Your task to perform on an android device: Open Amazon Image 0: 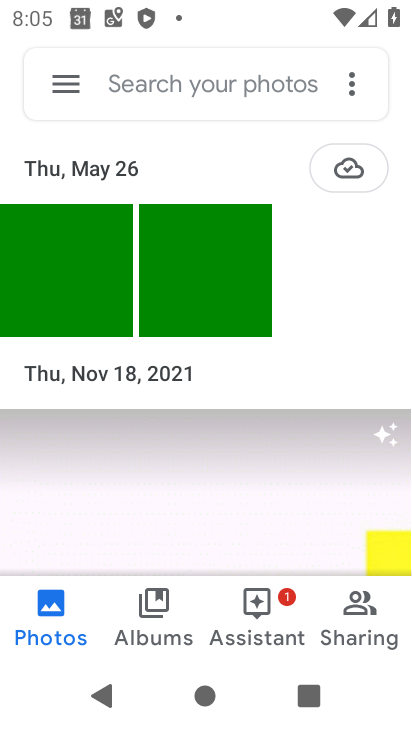
Step 0: press home button
Your task to perform on an android device: Open Amazon Image 1: 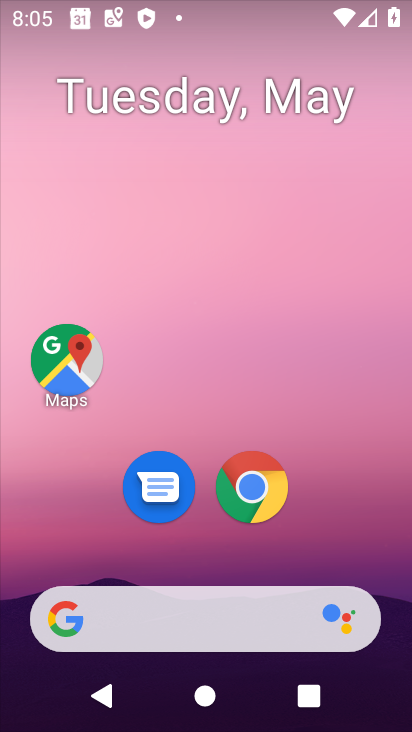
Step 1: drag from (356, 495) to (375, 78)
Your task to perform on an android device: Open Amazon Image 2: 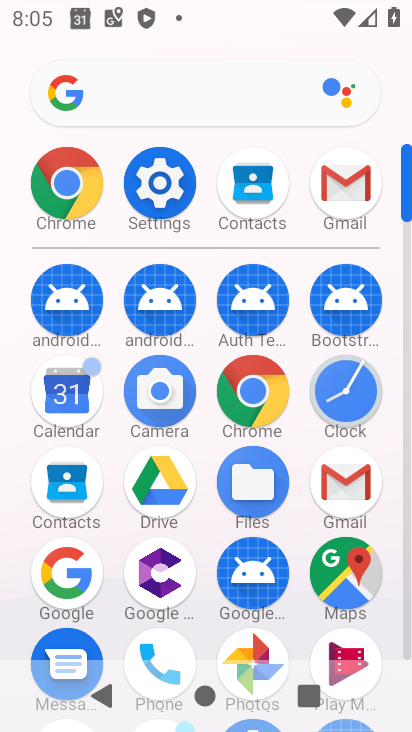
Step 2: click (244, 400)
Your task to perform on an android device: Open Amazon Image 3: 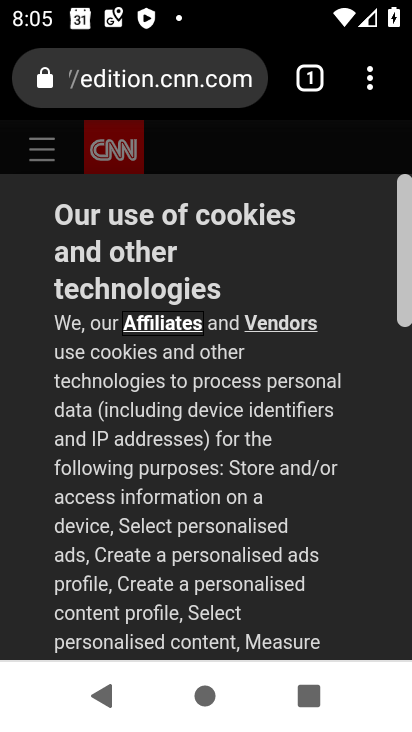
Step 3: click (246, 80)
Your task to perform on an android device: Open Amazon Image 4: 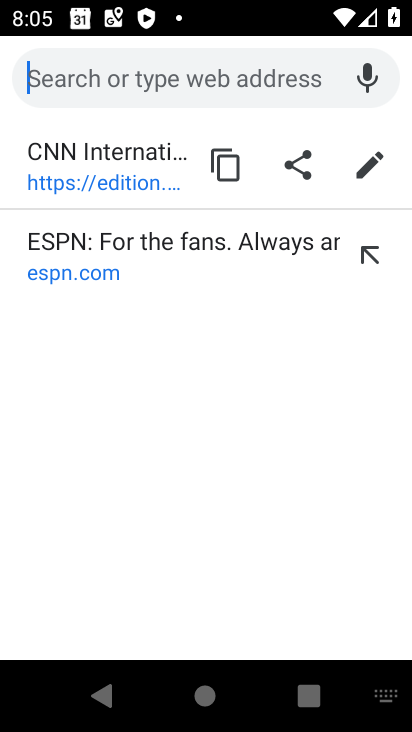
Step 4: type "amazon"
Your task to perform on an android device: Open Amazon Image 5: 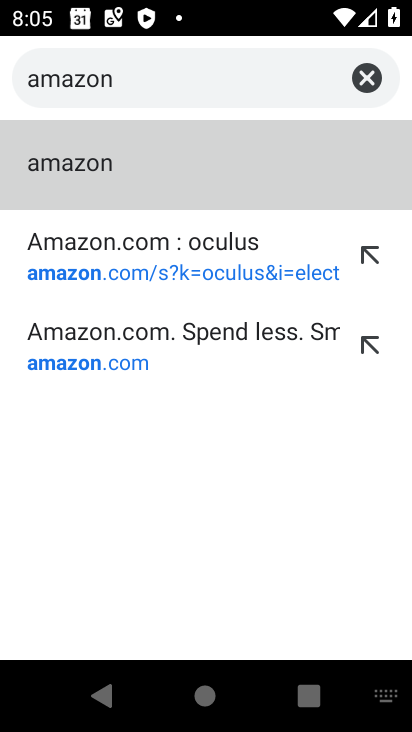
Step 5: click (105, 158)
Your task to perform on an android device: Open Amazon Image 6: 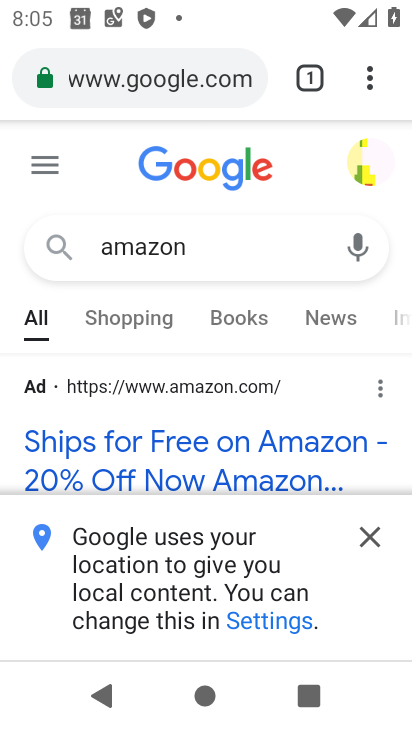
Step 6: task complete